Your task to perform on an android device: toggle airplane mode Image 0: 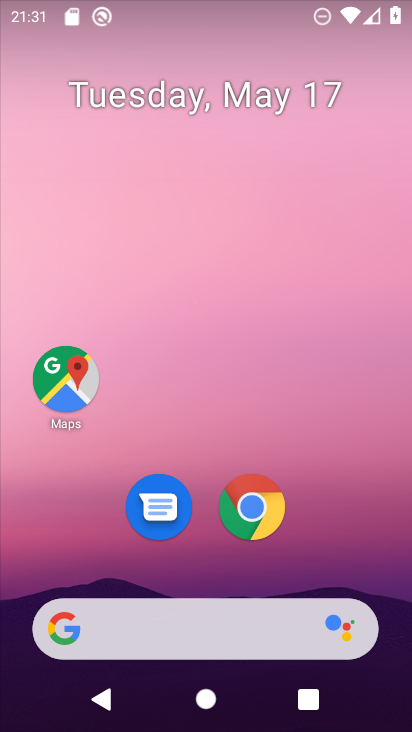
Step 0: drag from (395, 586) to (215, 8)
Your task to perform on an android device: toggle airplane mode Image 1: 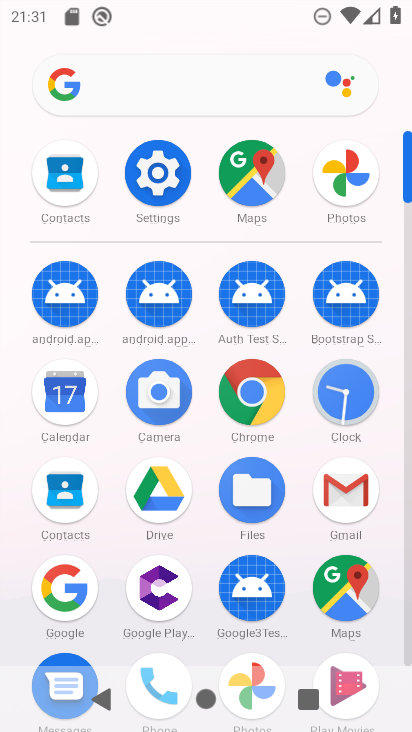
Step 1: click (156, 163)
Your task to perform on an android device: toggle airplane mode Image 2: 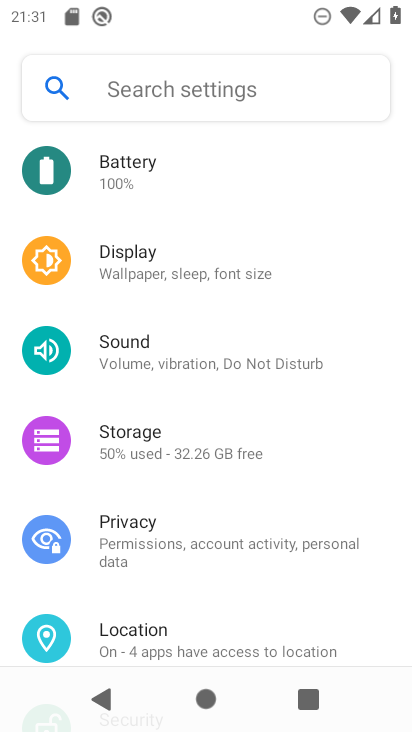
Step 2: drag from (228, 142) to (253, 447)
Your task to perform on an android device: toggle airplane mode Image 3: 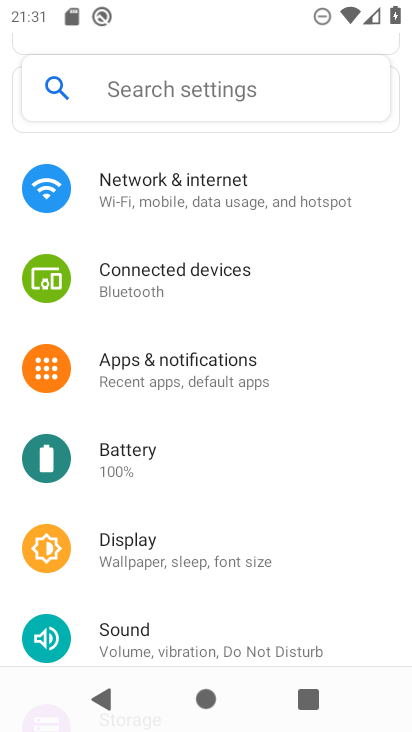
Step 3: click (206, 192)
Your task to perform on an android device: toggle airplane mode Image 4: 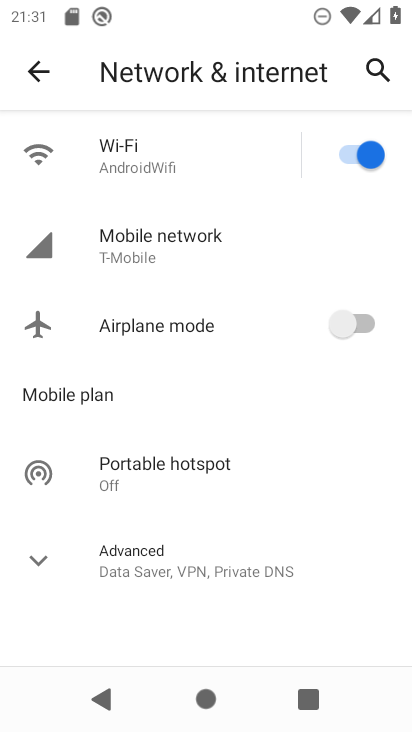
Step 4: click (336, 319)
Your task to perform on an android device: toggle airplane mode Image 5: 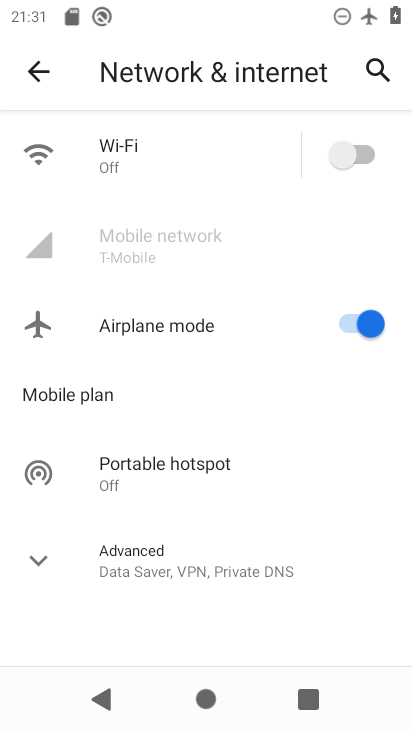
Step 5: task complete